Your task to perform on an android device: Turn on the flashlight Image 0: 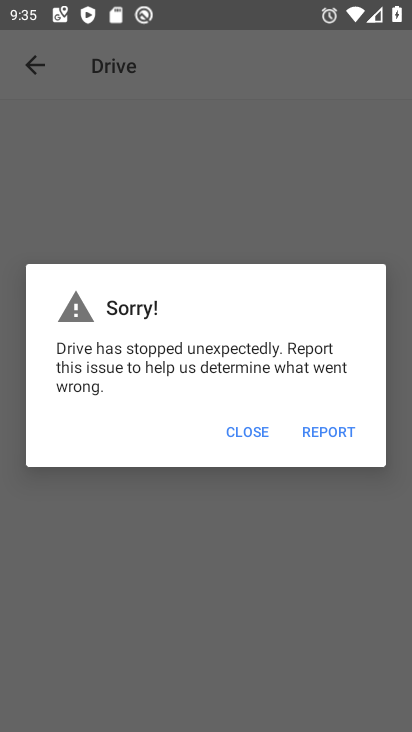
Step 0: task impossible